Your task to perform on an android device: find which apps use the phone's location Image 0: 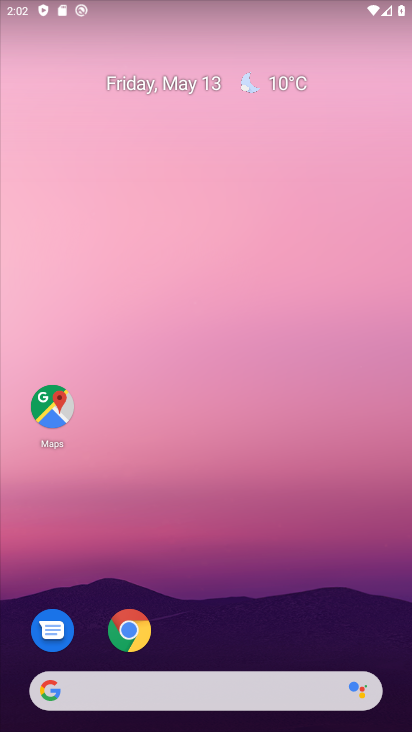
Step 0: drag from (214, 643) to (281, 178)
Your task to perform on an android device: find which apps use the phone's location Image 1: 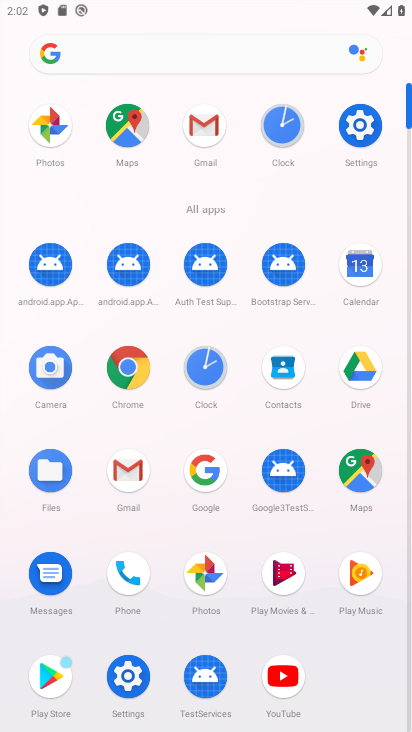
Step 1: click (126, 669)
Your task to perform on an android device: find which apps use the phone's location Image 2: 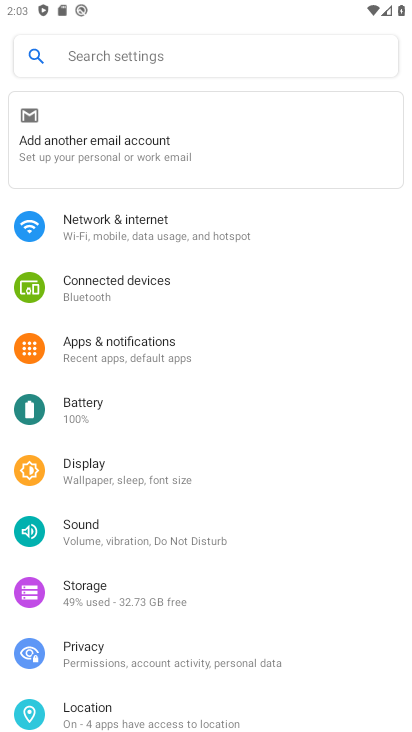
Step 2: click (112, 704)
Your task to perform on an android device: find which apps use the phone's location Image 3: 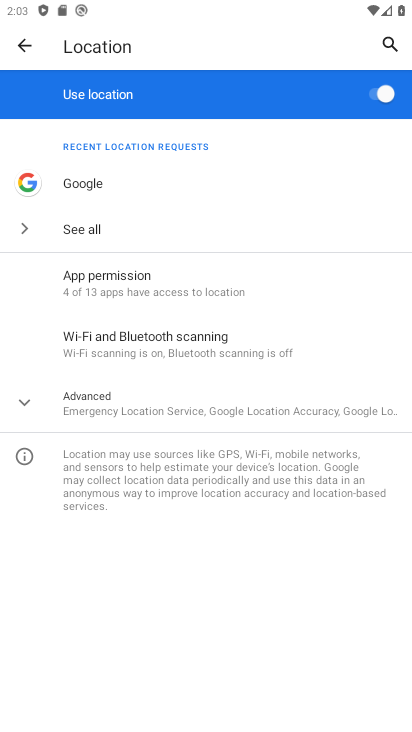
Step 3: click (175, 282)
Your task to perform on an android device: find which apps use the phone's location Image 4: 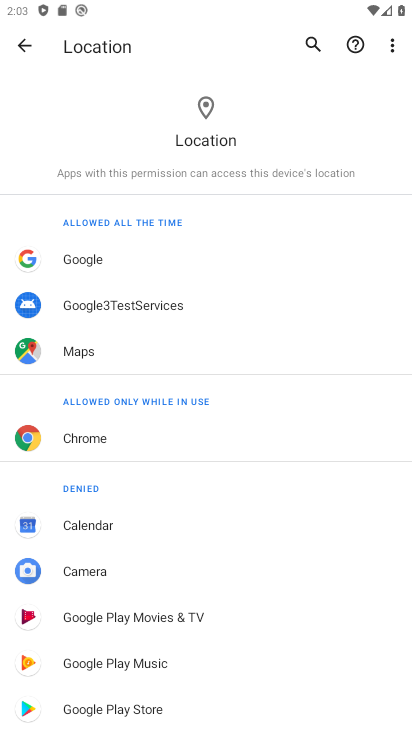
Step 4: task complete